Your task to perform on an android device: turn off sleep mode Image 0: 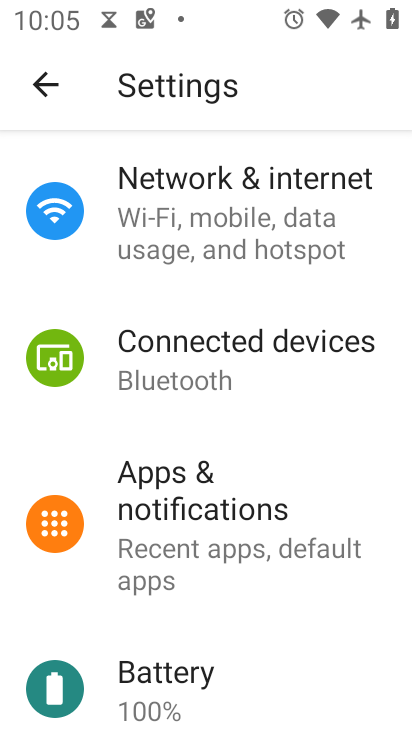
Step 0: press home button
Your task to perform on an android device: turn off sleep mode Image 1: 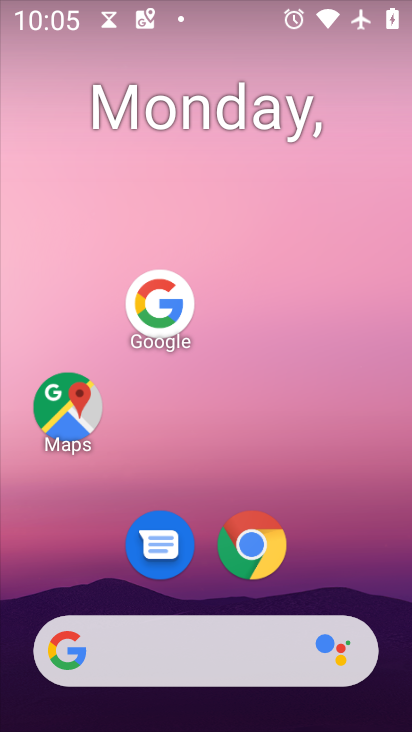
Step 1: drag from (174, 653) to (302, 95)
Your task to perform on an android device: turn off sleep mode Image 2: 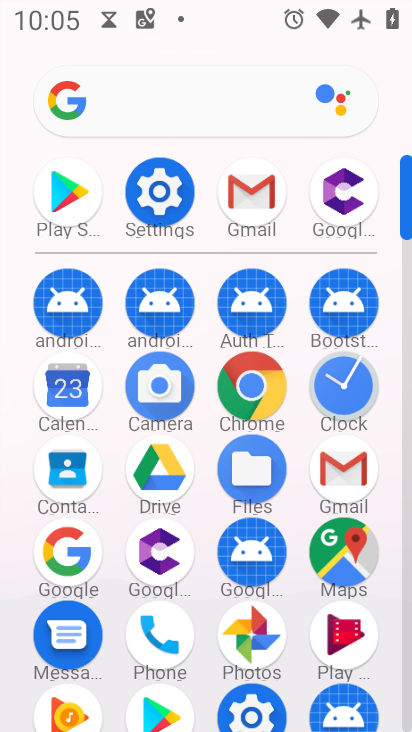
Step 2: click (157, 201)
Your task to perform on an android device: turn off sleep mode Image 3: 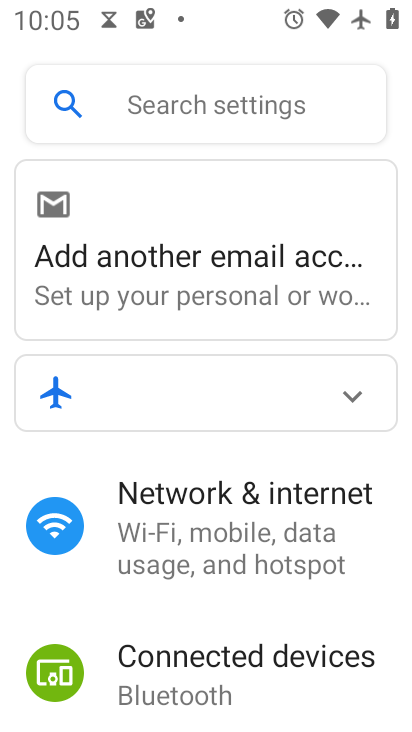
Step 3: drag from (269, 656) to (381, 227)
Your task to perform on an android device: turn off sleep mode Image 4: 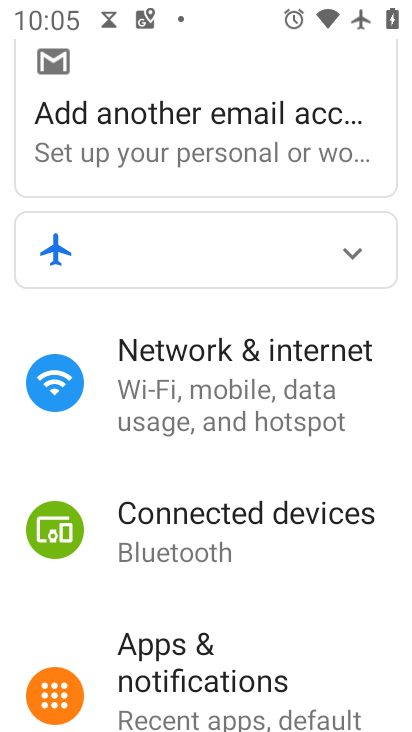
Step 4: drag from (259, 635) to (365, 296)
Your task to perform on an android device: turn off sleep mode Image 5: 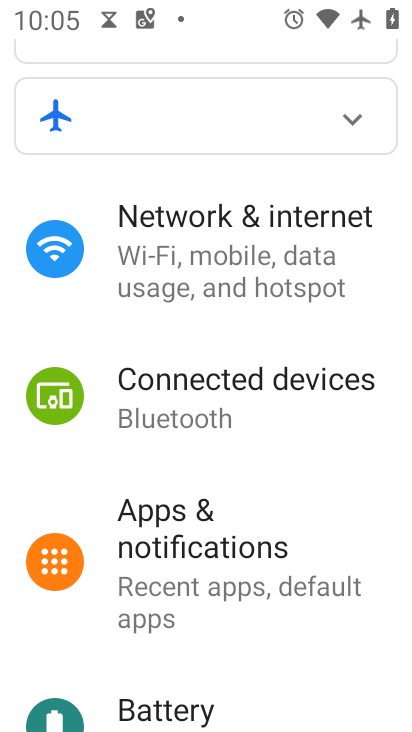
Step 5: drag from (234, 631) to (283, 231)
Your task to perform on an android device: turn off sleep mode Image 6: 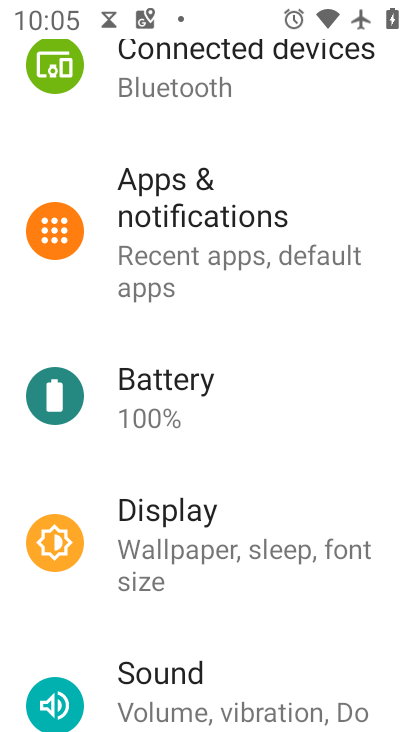
Step 6: click (178, 556)
Your task to perform on an android device: turn off sleep mode Image 7: 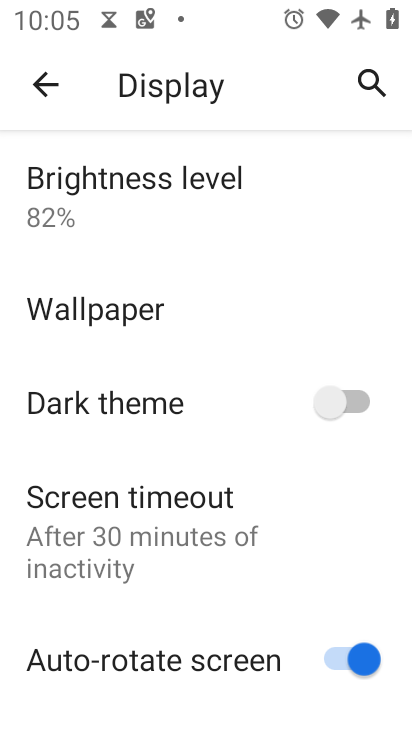
Step 7: task complete